Your task to perform on an android device: Go to location settings Image 0: 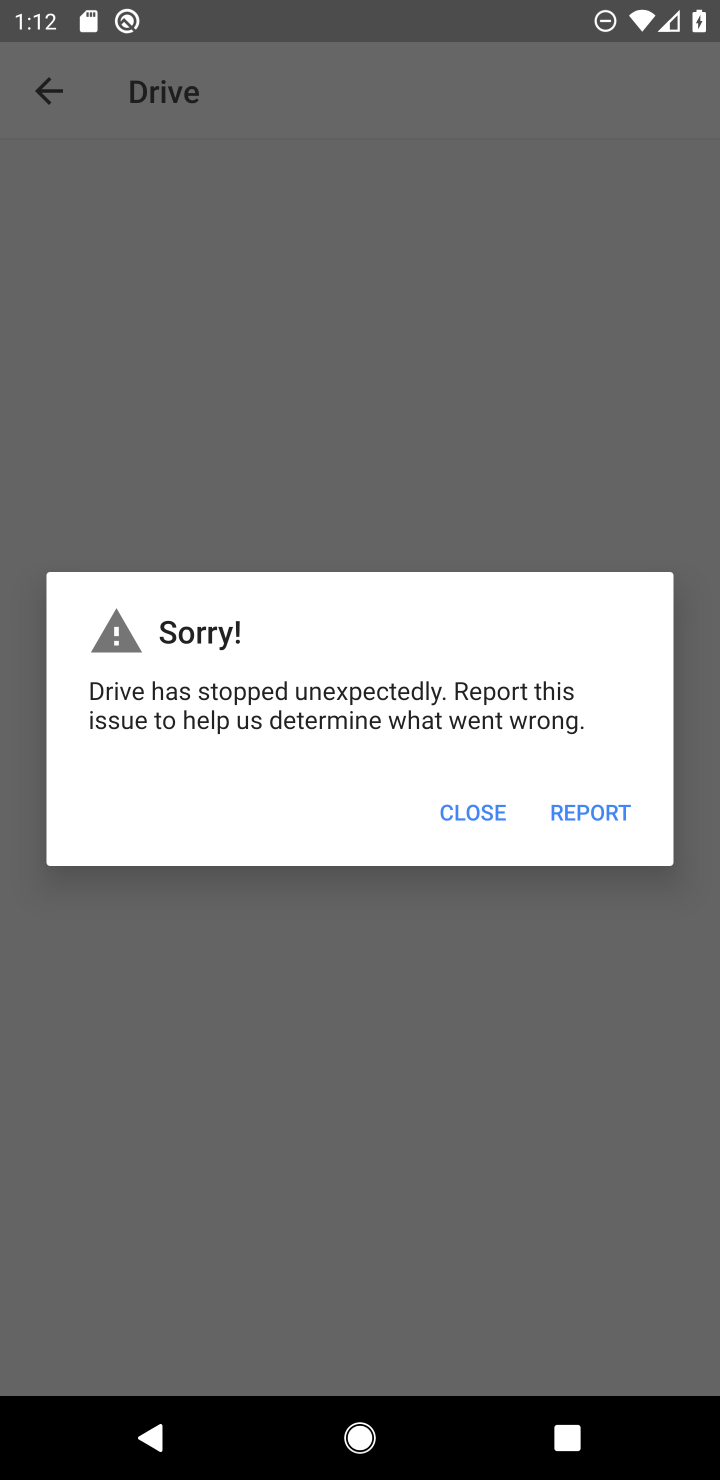
Step 0: press home button
Your task to perform on an android device: Go to location settings Image 1: 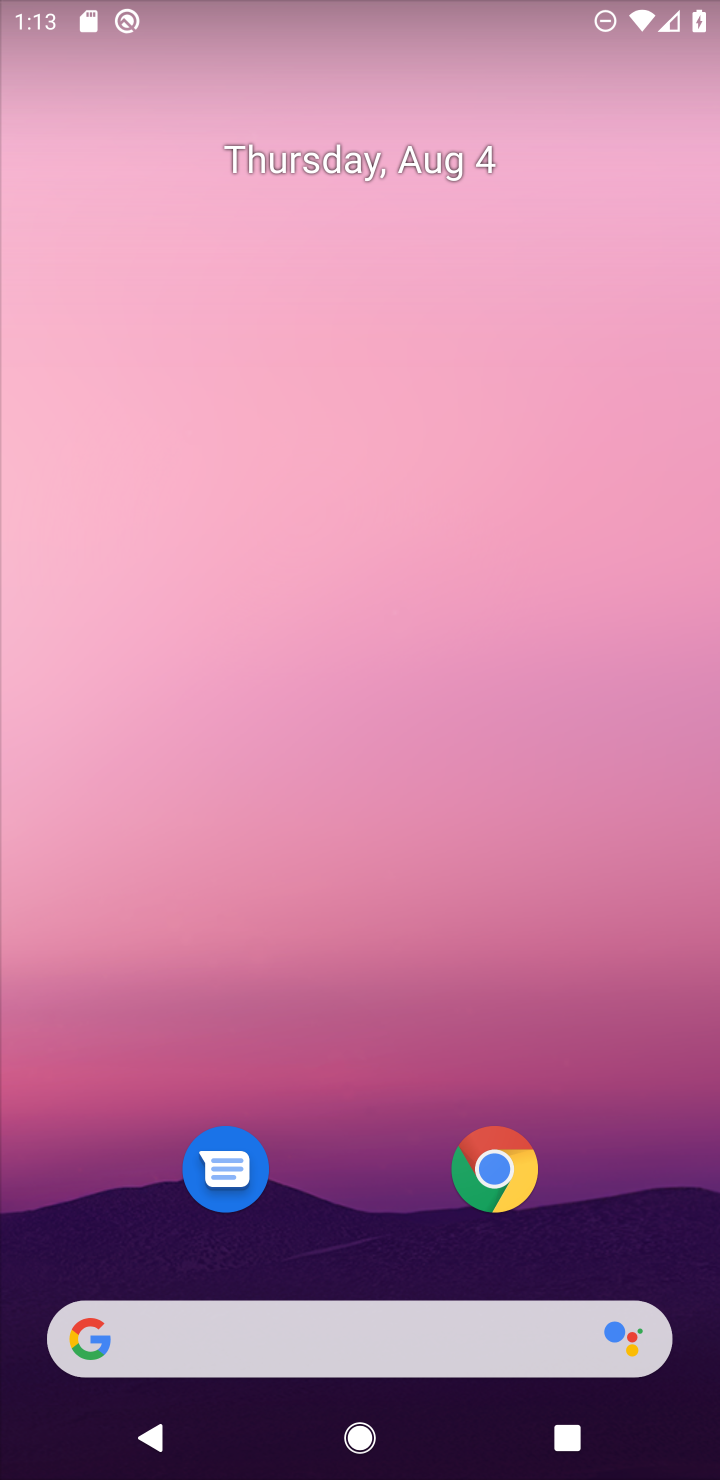
Step 1: drag from (600, 948) to (570, 86)
Your task to perform on an android device: Go to location settings Image 2: 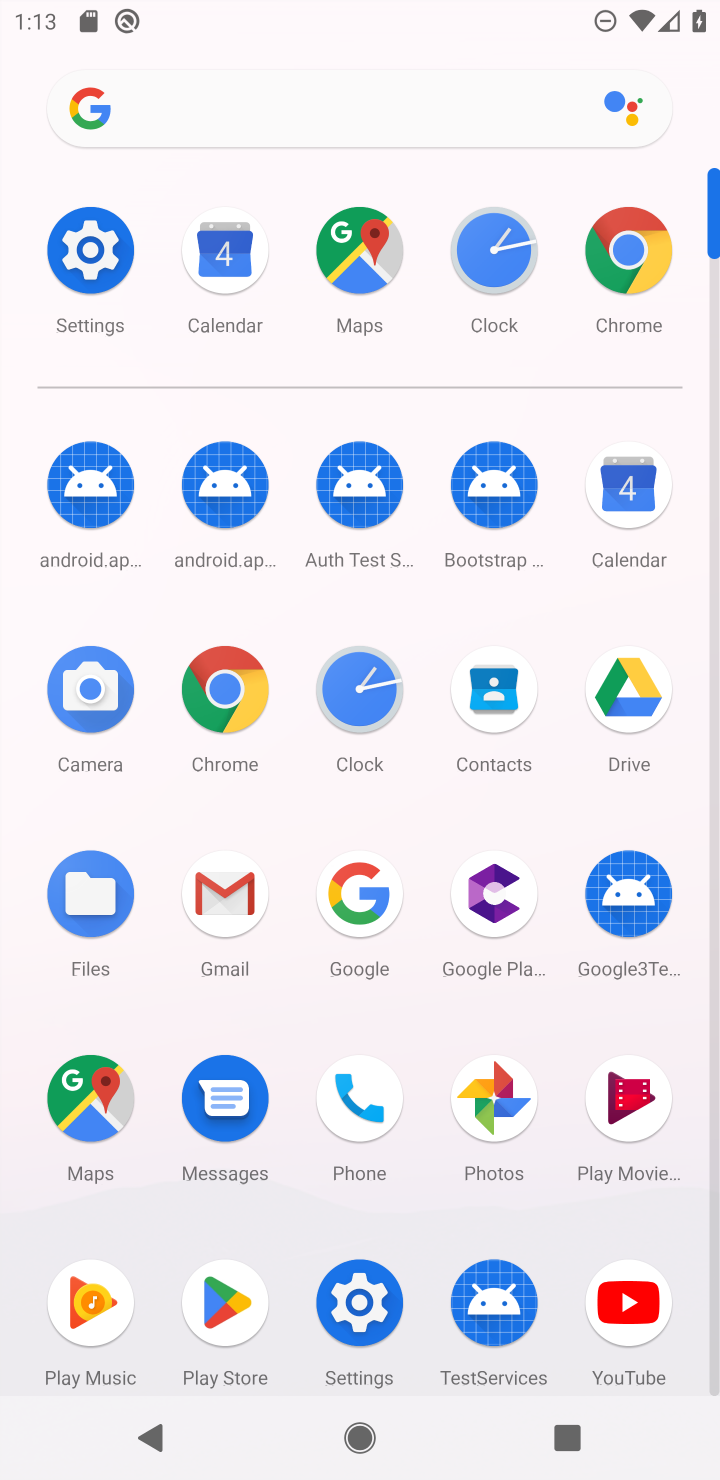
Step 2: click (88, 252)
Your task to perform on an android device: Go to location settings Image 3: 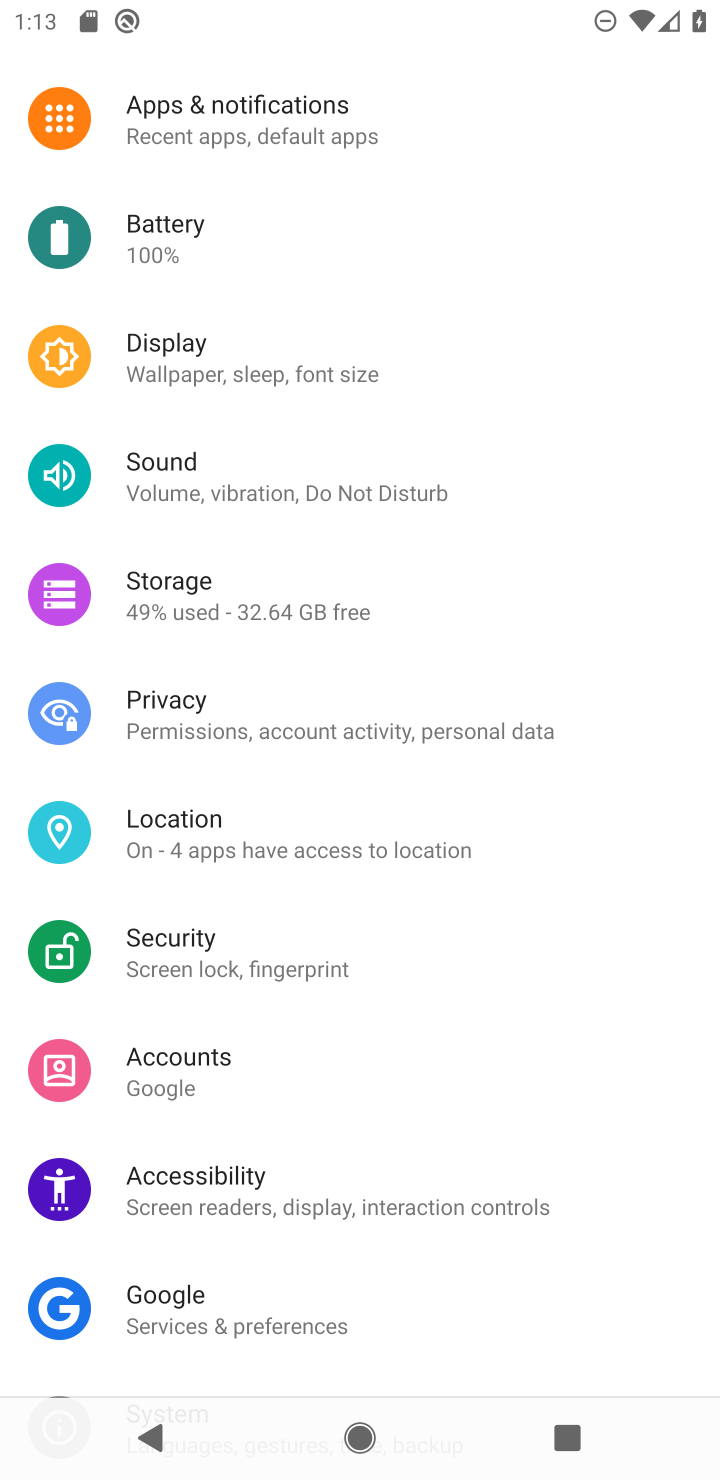
Step 3: click (200, 862)
Your task to perform on an android device: Go to location settings Image 4: 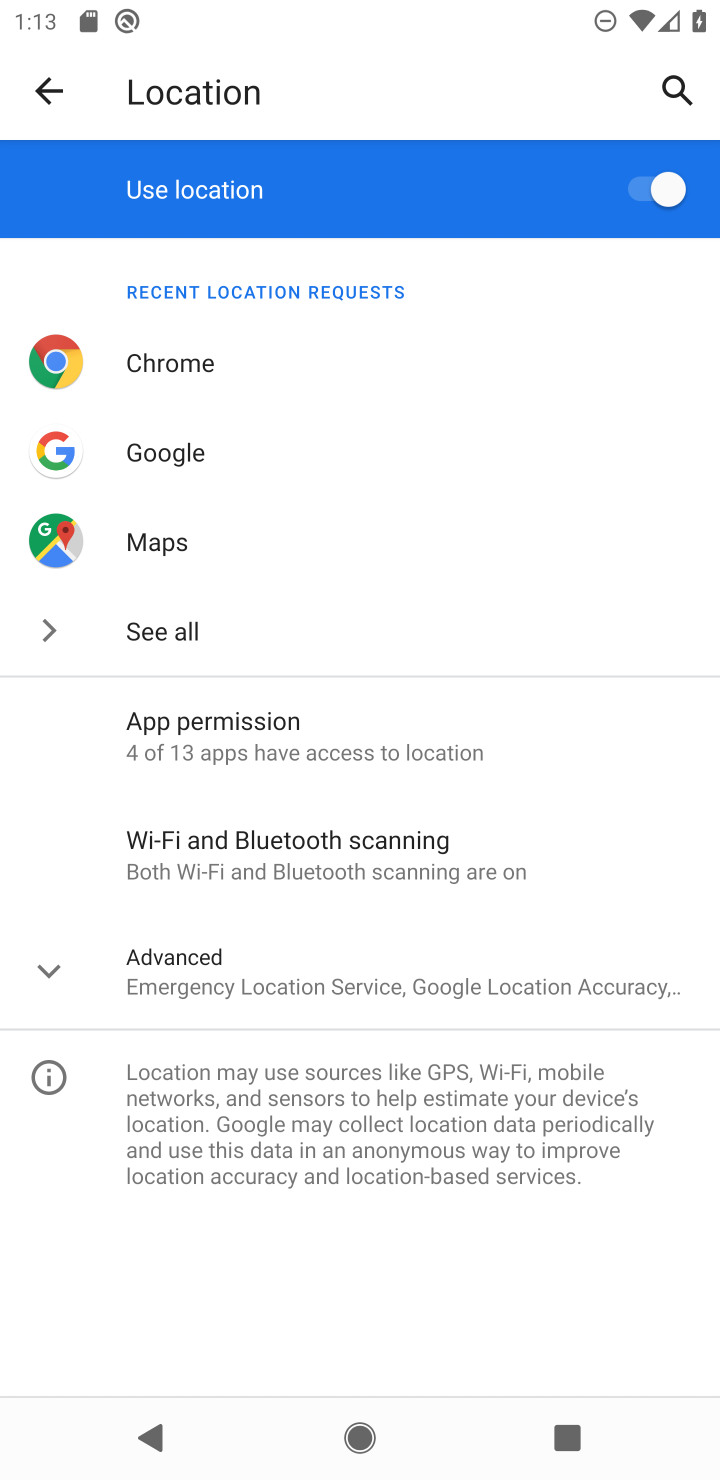
Step 4: task complete